Your task to perform on an android device: empty trash in google photos Image 0: 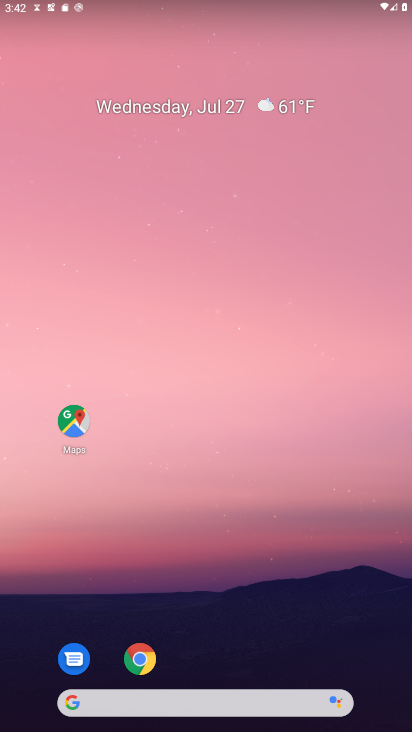
Step 0: drag from (209, 692) to (186, 23)
Your task to perform on an android device: empty trash in google photos Image 1: 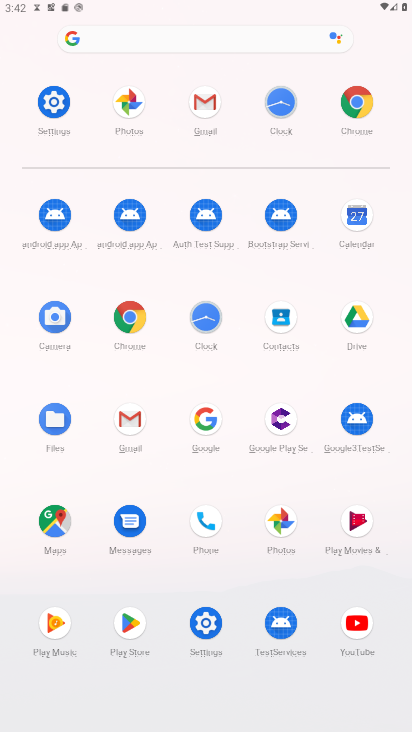
Step 1: click (282, 521)
Your task to perform on an android device: empty trash in google photos Image 2: 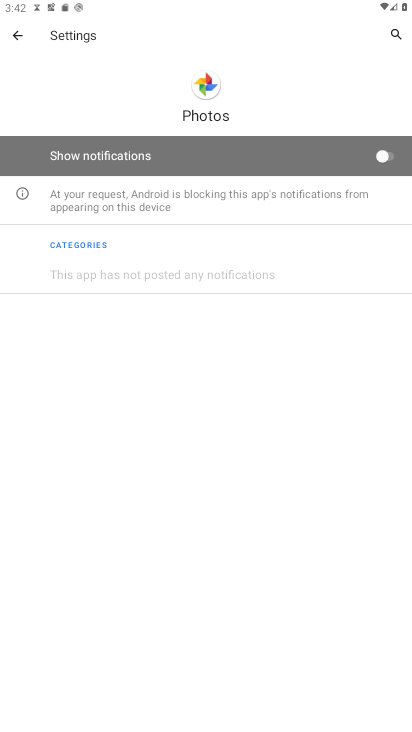
Step 2: click (28, 42)
Your task to perform on an android device: empty trash in google photos Image 3: 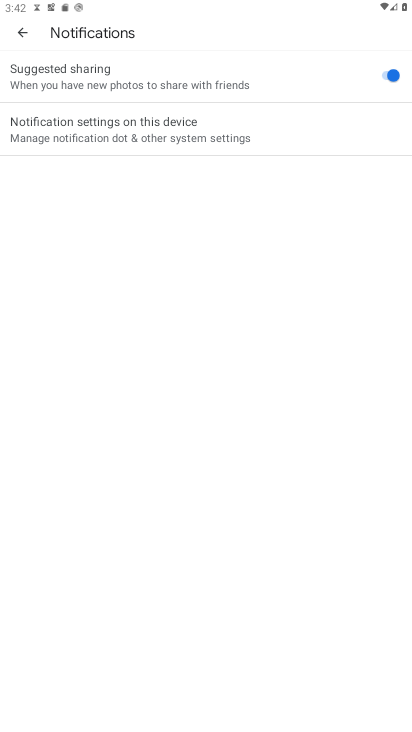
Step 3: click (20, 40)
Your task to perform on an android device: empty trash in google photos Image 4: 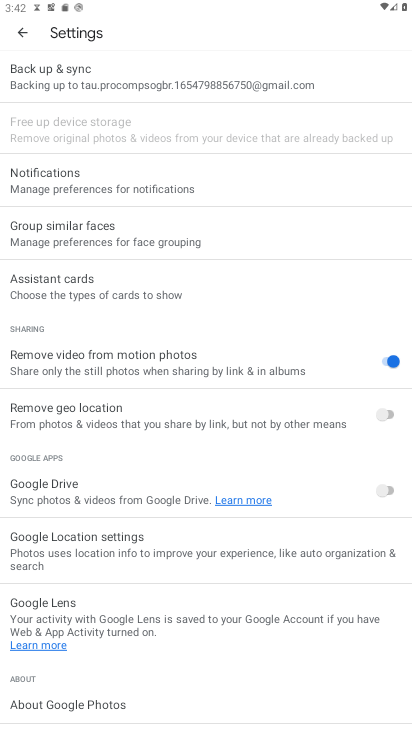
Step 4: click (27, 34)
Your task to perform on an android device: empty trash in google photos Image 5: 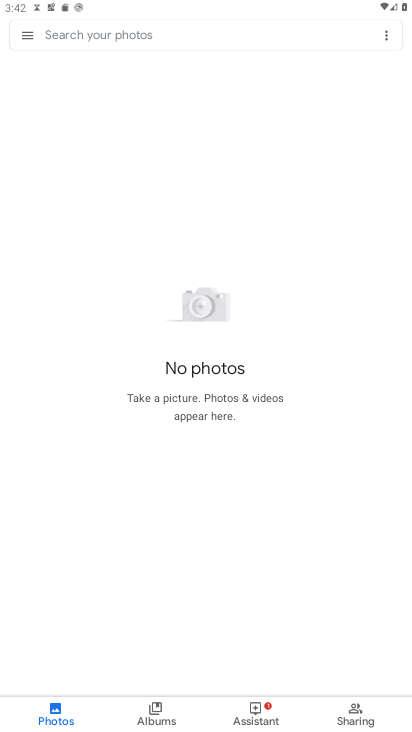
Step 5: click (27, 34)
Your task to perform on an android device: empty trash in google photos Image 6: 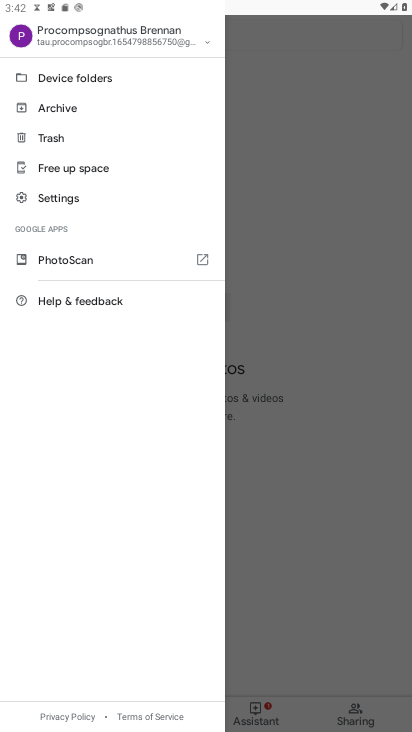
Step 6: click (47, 137)
Your task to perform on an android device: empty trash in google photos Image 7: 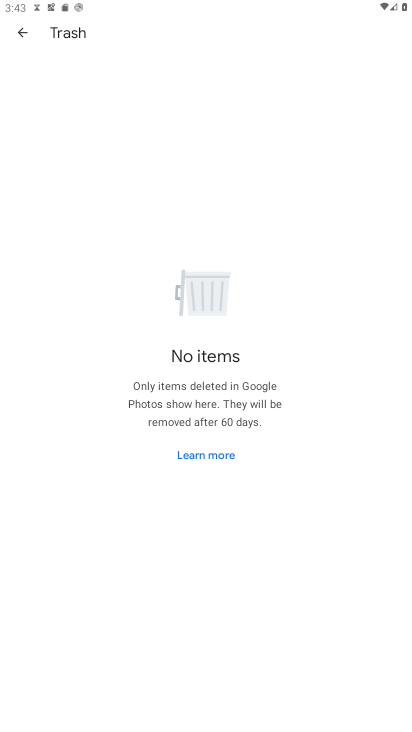
Step 7: click (25, 41)
Your task to perform on an android device: empty trash in google photos Image 8: 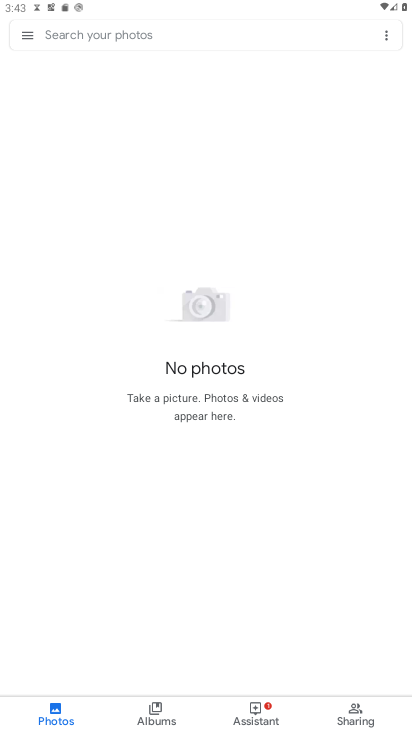
Step 8: click (29, 40)
Your task to perform on an android device: empty trash in google photos Image 9: 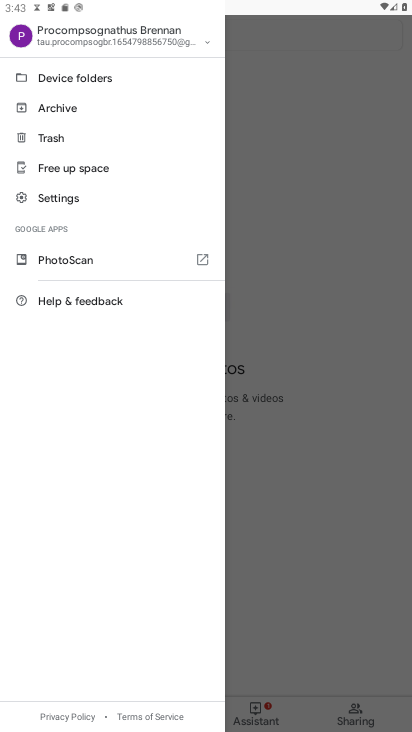
Step 9: click (69, 135)
Your task to perform on an android device: empty trash in google photos Image 10: 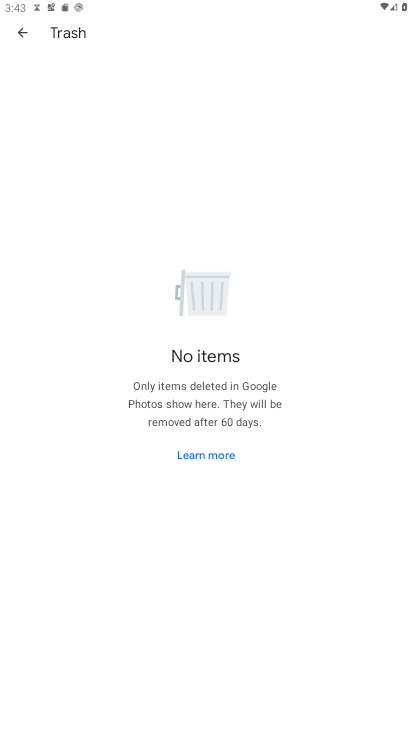
Step 10: task complete